Your task to perform on an android device: toggle pop-ups in chrome Image 0: 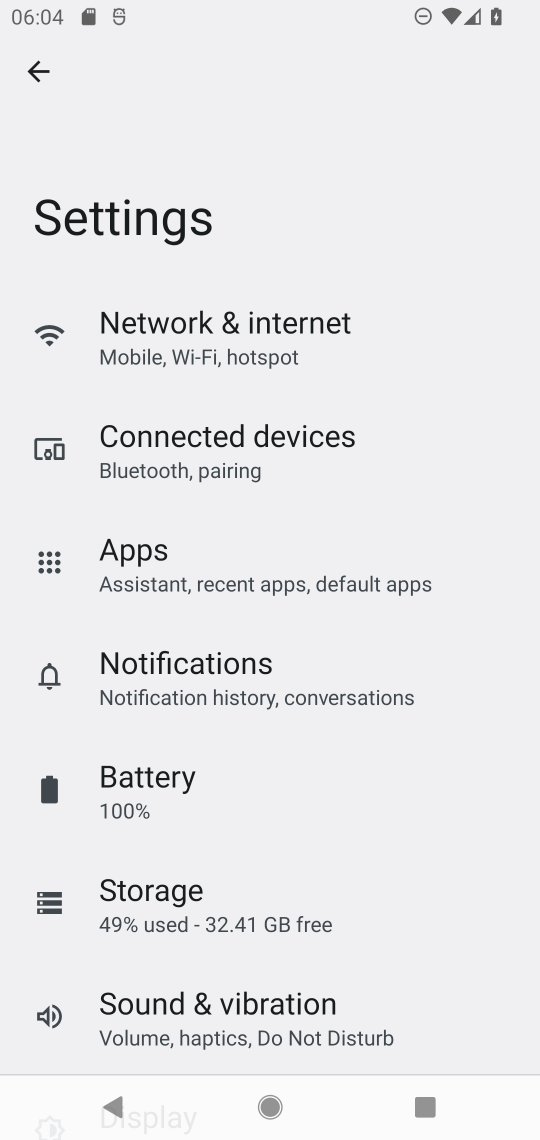
Step 0: press home button
Your task to perform on an android device: toggle pop-ups in chrome Image 1: 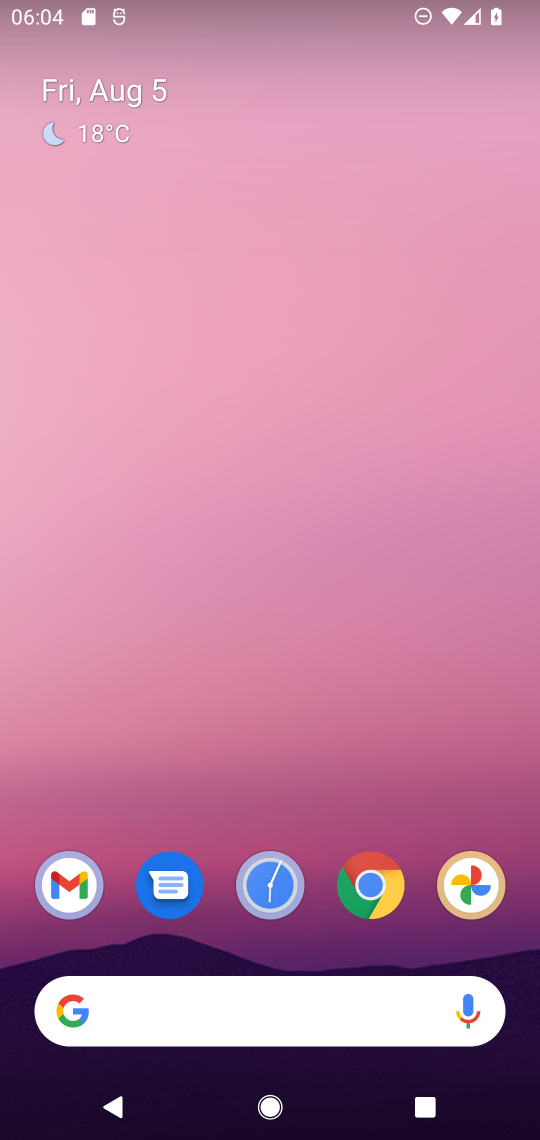
Step 1: click (370, 879)
Your task to perform on an android device: toggle pop-ups in chrome Image 2: 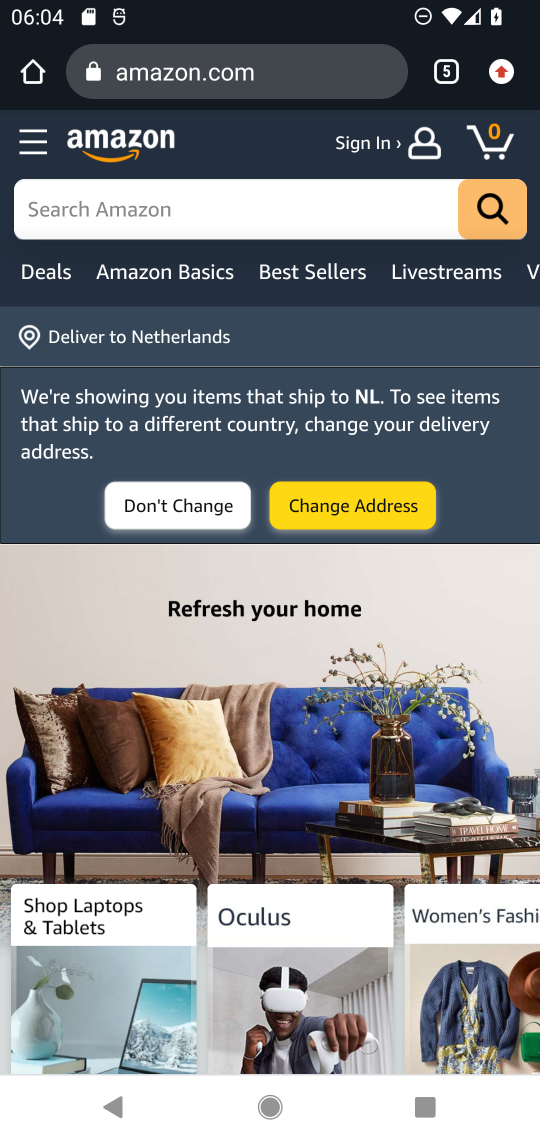
Step 2: click (506, 73)
Your task to perform on an android device: toggle pop-ups in chrome Image 3: 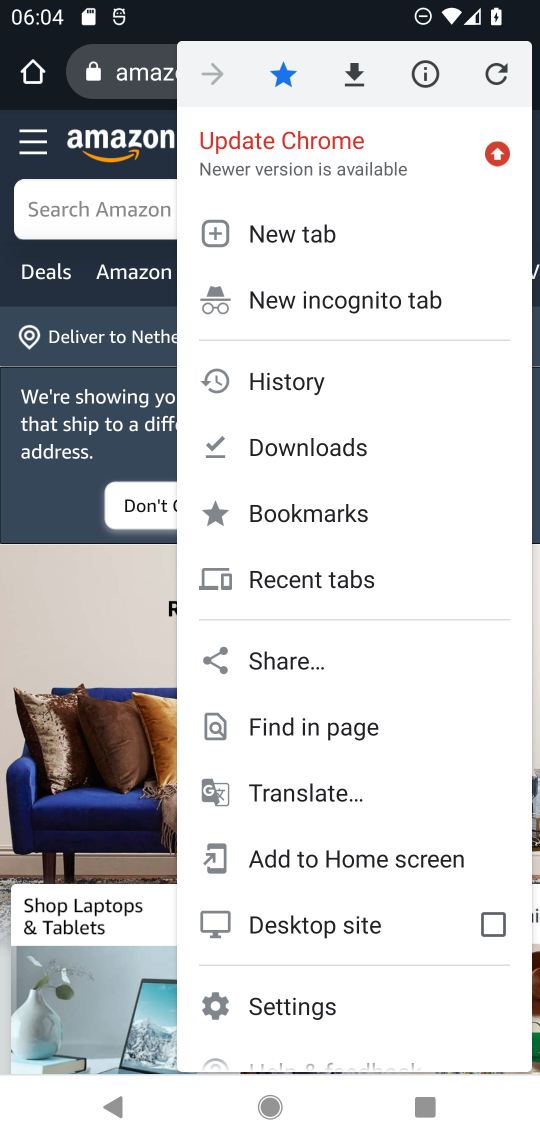
Step 3: click (281, 1010)
Your task to perform on an android device: toggle pop-ups in chrome Image 4: 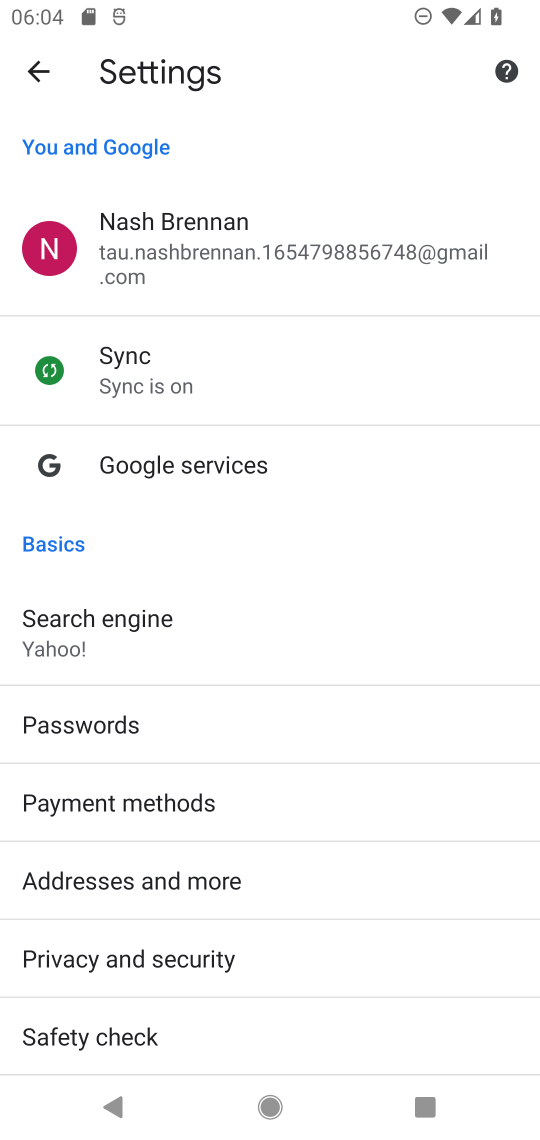
Step 4: drag from (190, 1007) to (158, 523)
Your task to perform on an android device: toggle pop-ups in chrome Image 5: 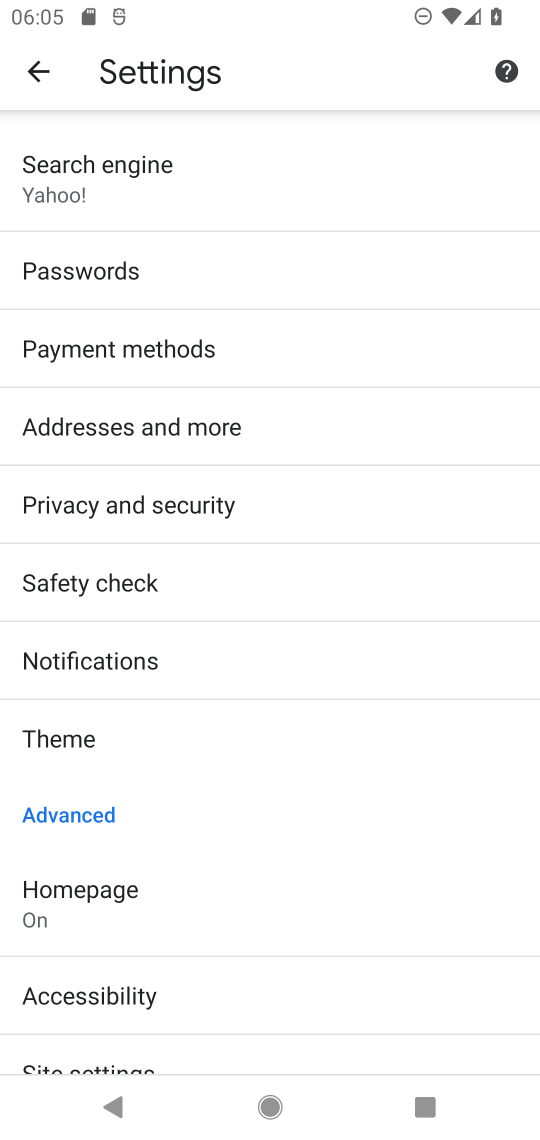
Step 5: drag from (174, 937) to (170, 563)
Your task to perform on an android device: toggle pop-ups in chrome Image 6: 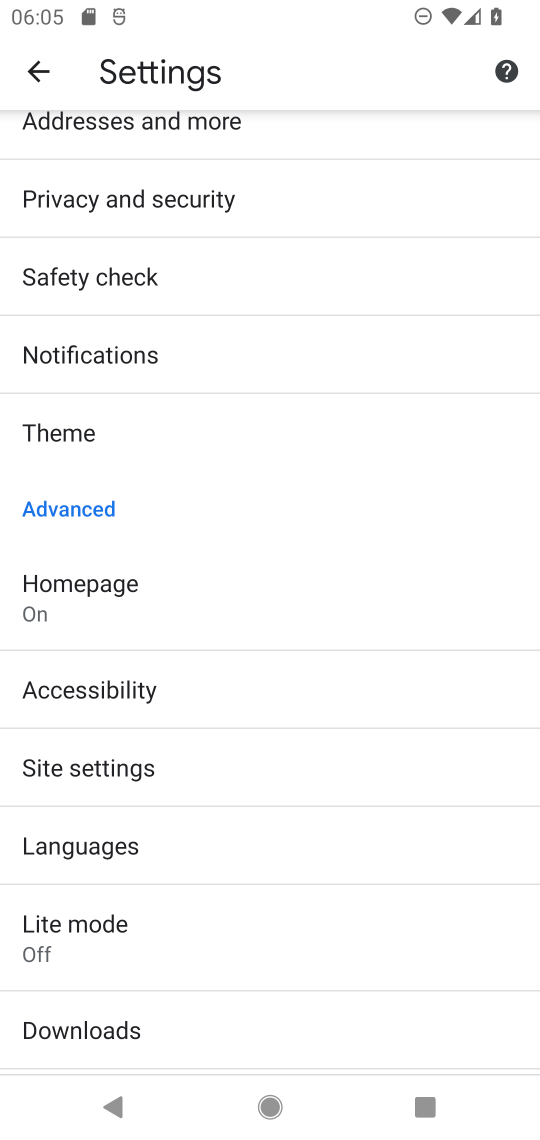
Step 6: click (100, 767)
Your task to perform on an android device: toggle pop-ups in chrome Image 7: 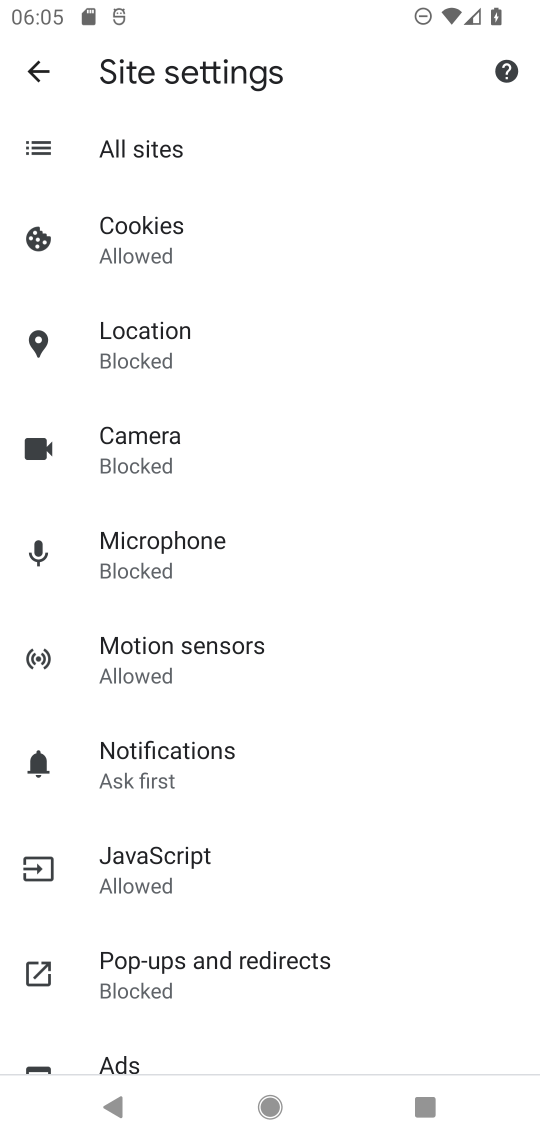
Step 7: drag from (182, 980) to (170, 438)
Your task to perform on an android device: toggle pop-ups in chrome Image 8: 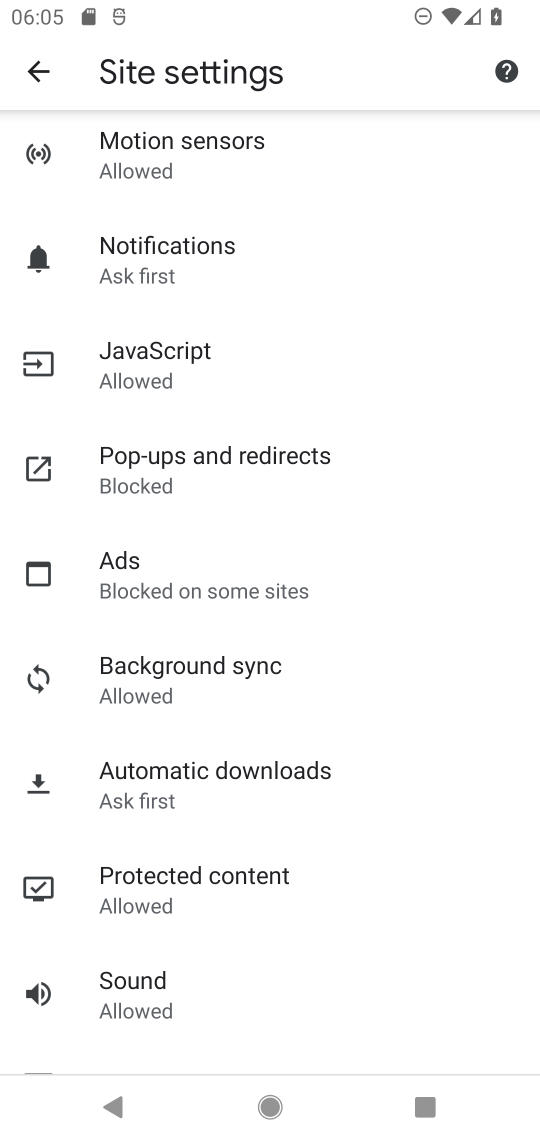
Step 8: click (171, 456)
Your task to perform on an android device: toggle pop-ups in chrome Image 9: 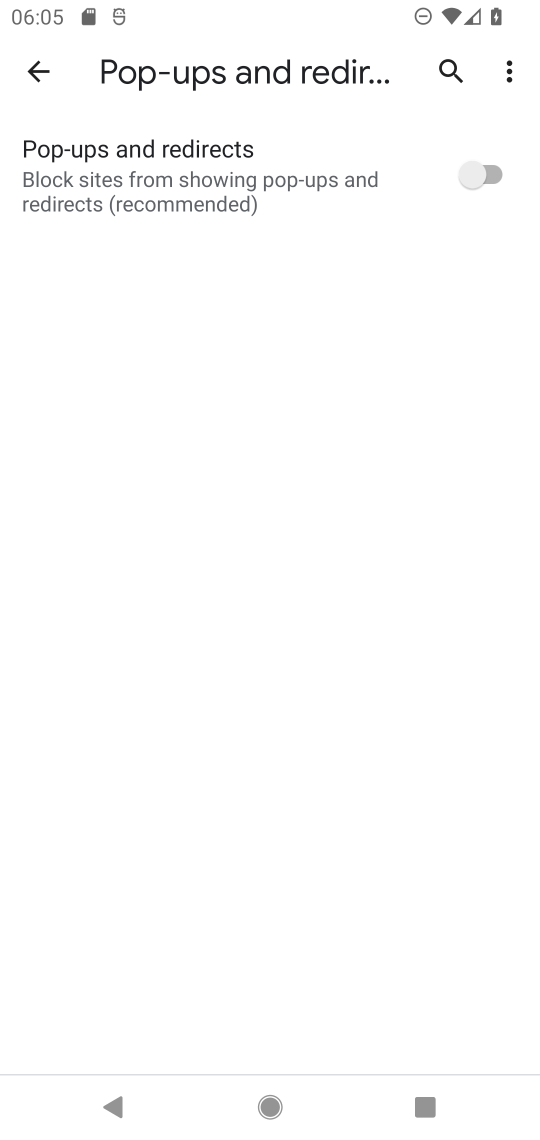
Step 9: click (489, 169)
Your task to perform on an android device: toggle pop-ups in chrome Image 10: 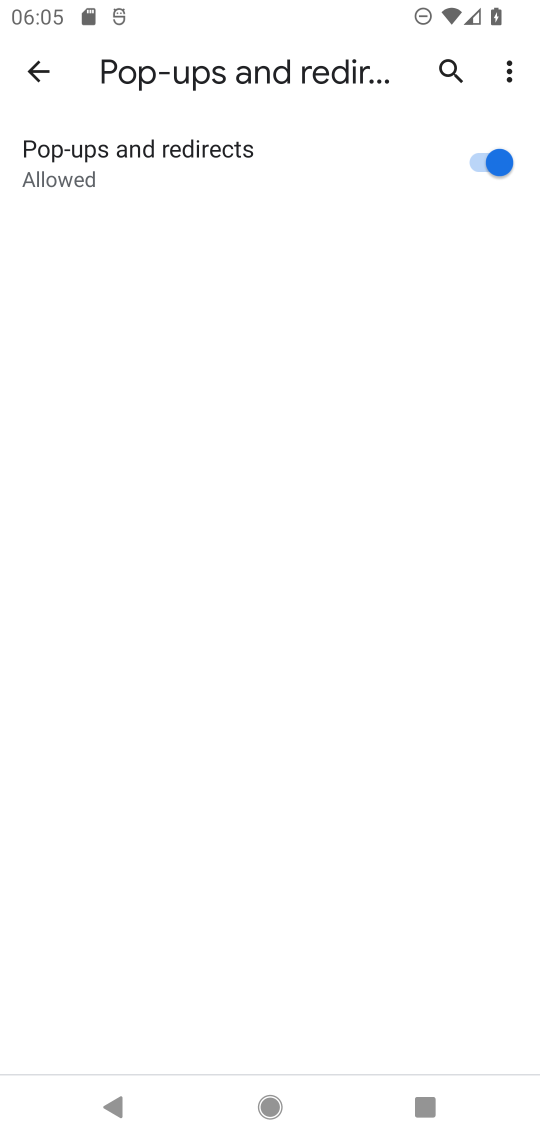
Step 10: task complete